Your task to perform on an android device: check data usage Image 0: 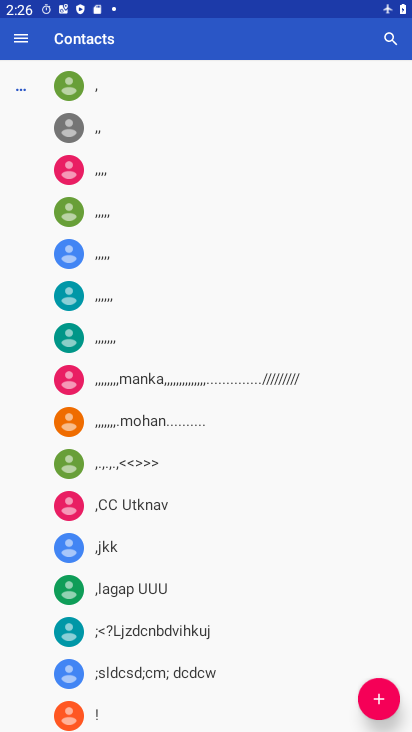
Step 0: press home button
Your task to perform on an android device: check data usage Image 1: 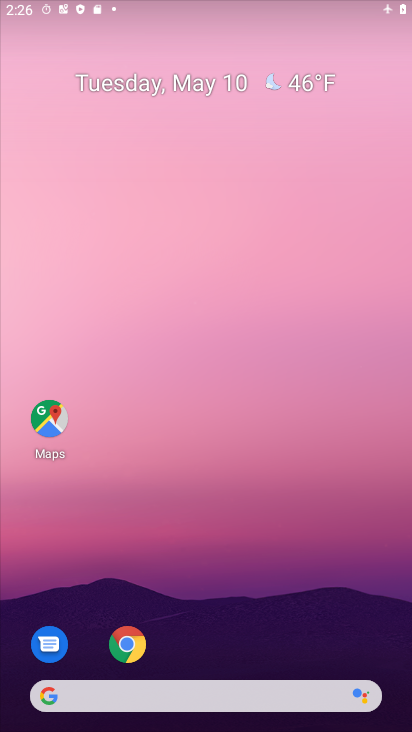
Step 1: drag from (278, 616) to (247, 271)
Your task to perform on an android device: check data usage Image 2: 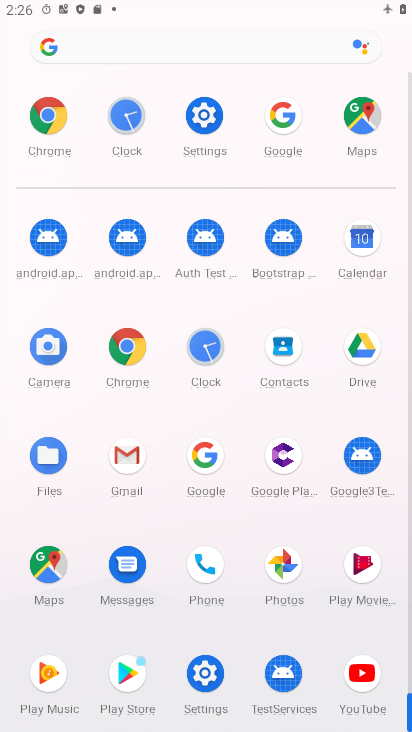
Step 2: click (194, 143)
Your task to perform on an android device: check data usage Image 3: 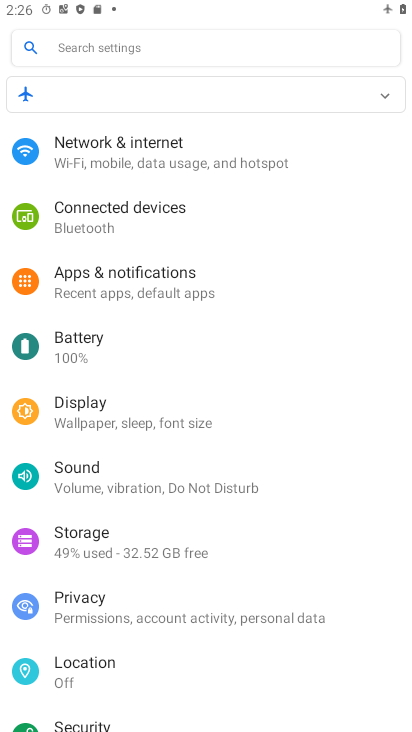
Step 3: click (218, 183)
Your task to perform on an android device: check data usage Image 4: 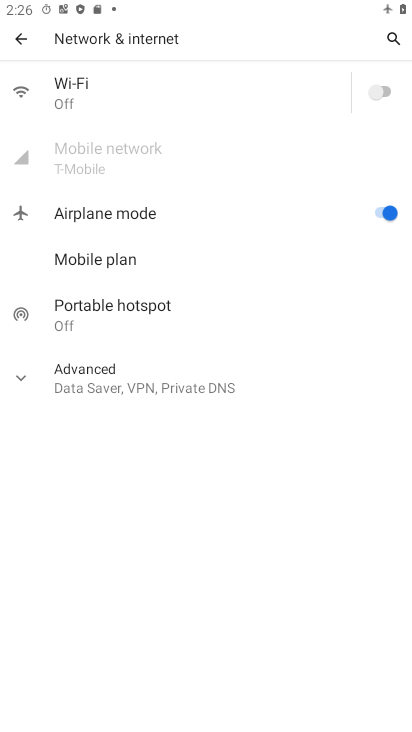
Step 4: click (200, 174)
Your task to perform on an android device: check data usage Image 5: 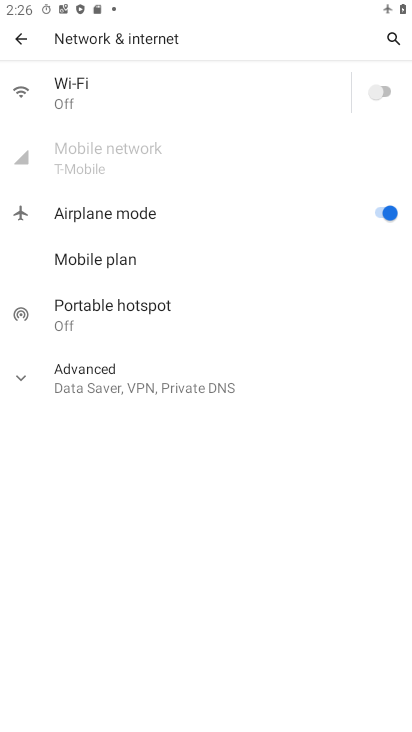
Step 5: task complete